Your task to perform on an android device: Go to ESPN.com Image 0: 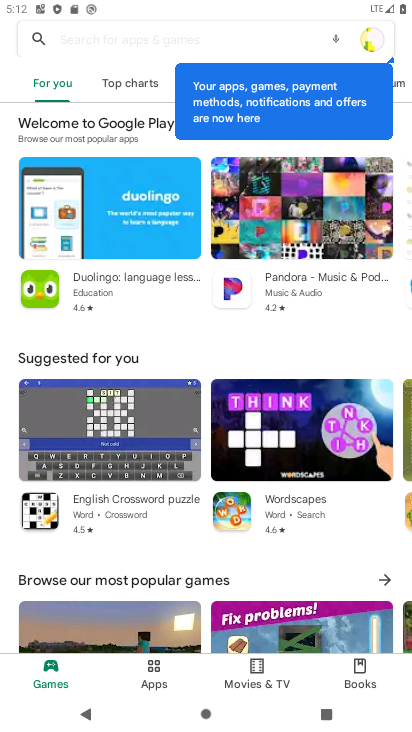
Step 0: press back button
Your task to perform on an android device: Go to ESPN.com Image 1: 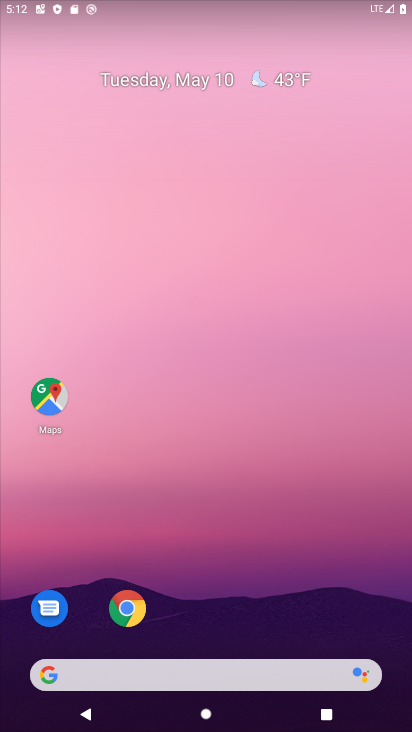
Step 1: click (117, 602)
Your task to perform on an android device: Go to ESPN.com Image 2: 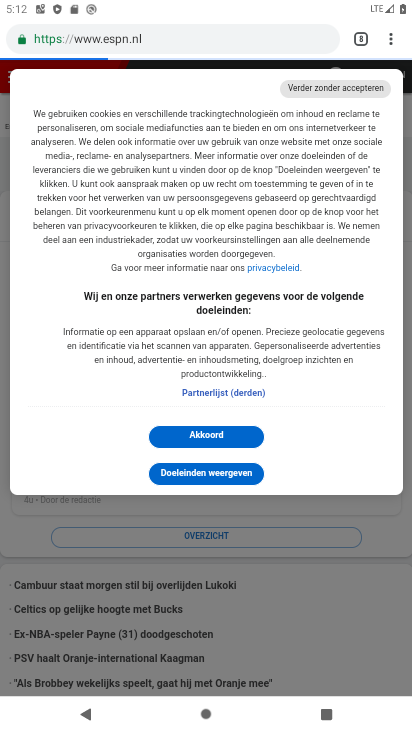
Step 2: click (362, 38)
Your task to perform on an android device: Go to ESPN.com Image 3: 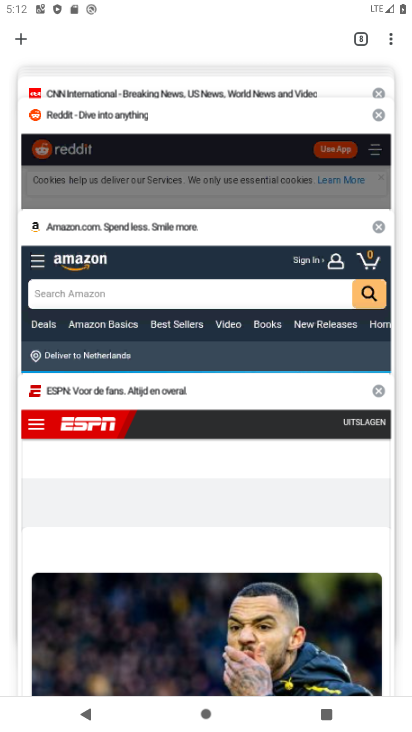
Step 3: click (80, 469)
Your task to perform on an android device: Go to ESPN.com Image 4: 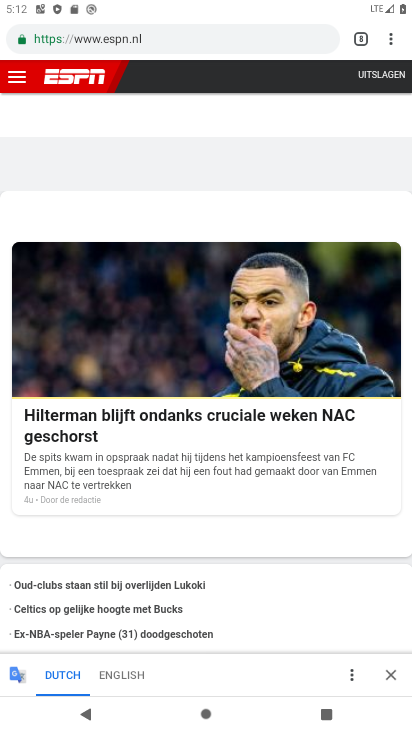
Step 4: task complete